Your task to perform on an android device: snooze an email in the gmail app Image 0: 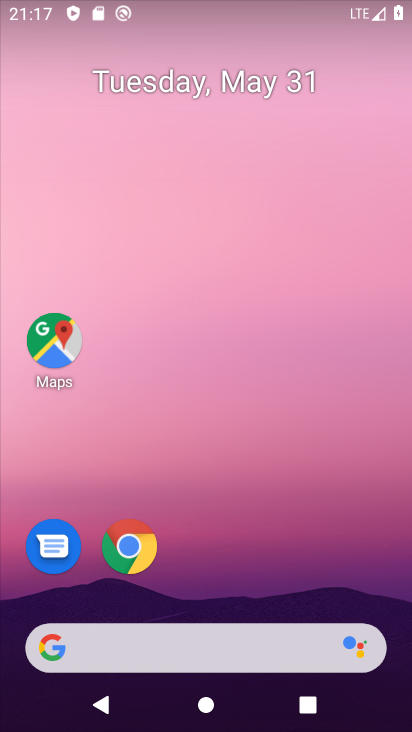
Step 0: drag from (386, 635) to (322, 73)
Your task to perform on an android device: snooze an email in the gmail app Image 1: 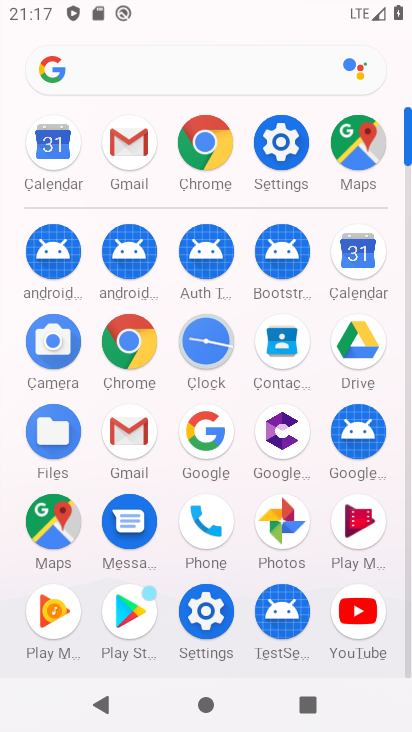
Step 1: click (127, 150)
Your task to perform on an android device: snooze an email in the gmail app Image 2: 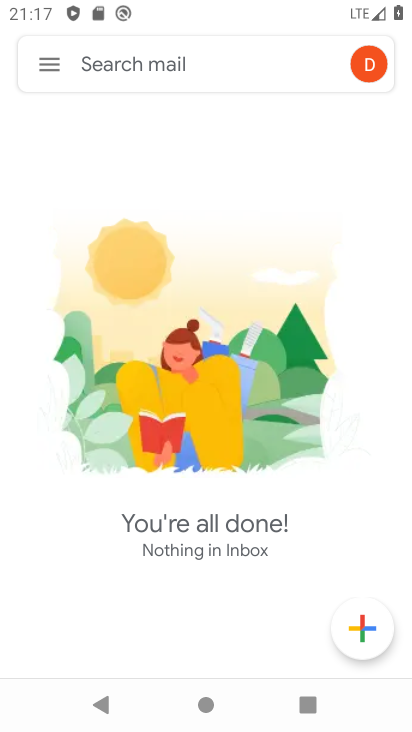
Step 2: click (40, 61)
Your task to perform on an android device: snooze an email in the gmail app Image 3: 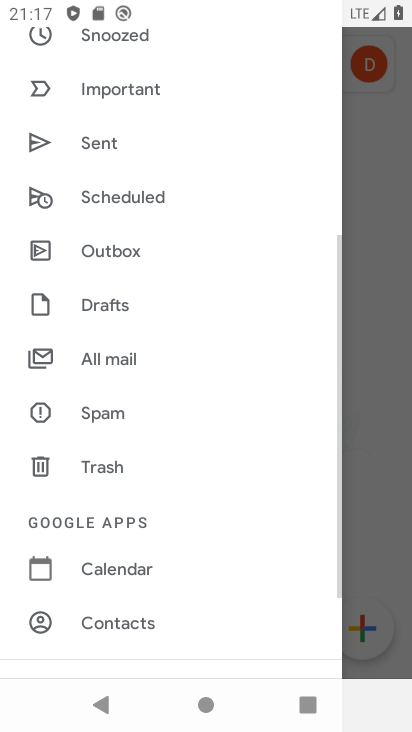
Step 3: drag from (229, 65) to (262, 428)
Your task to perform on an android device: snooze an email in the gmail app Image 4: 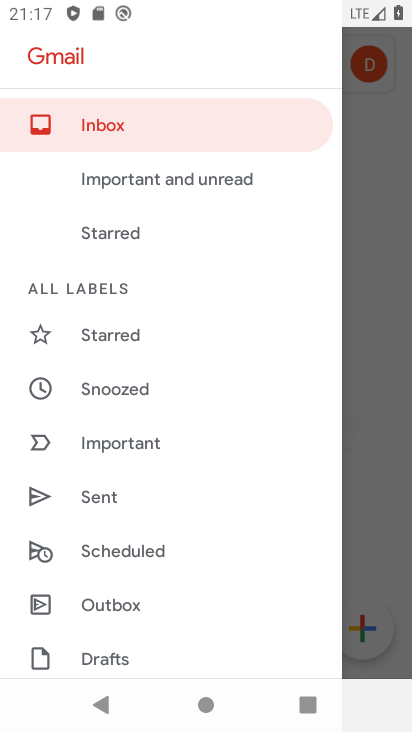
Step 4: click (115, 133)
Your task to perform on an android device: snooze an email in the gmail app Image 5: 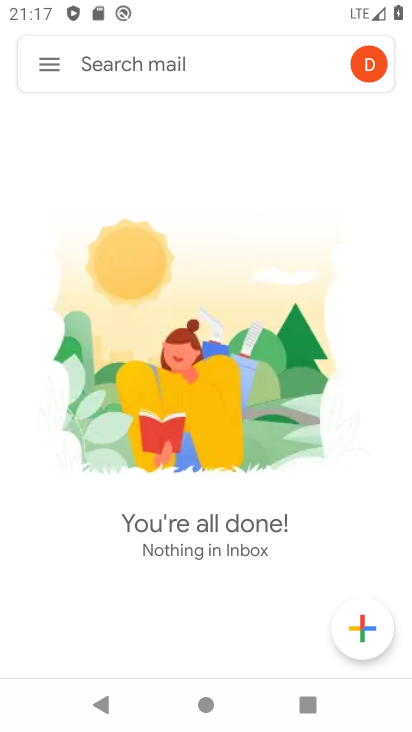
Step 5: task complete